Your task to perform on an android device: Add razer blade to the cart on newegg.com Image 0: 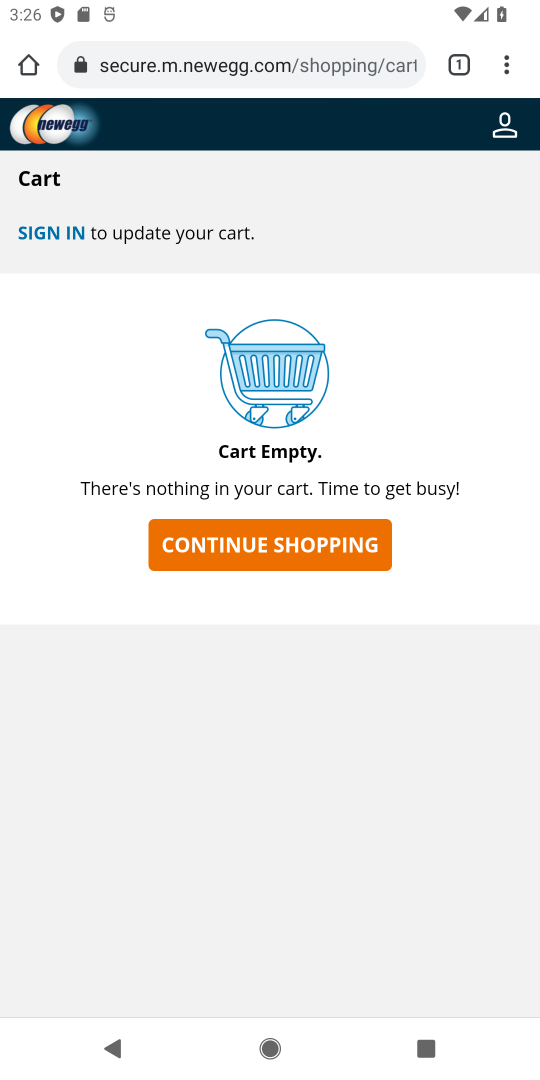
Step 0: press home button
Your task to perform on an android device: Add razer blade to the cart on newegg.com Image 1: 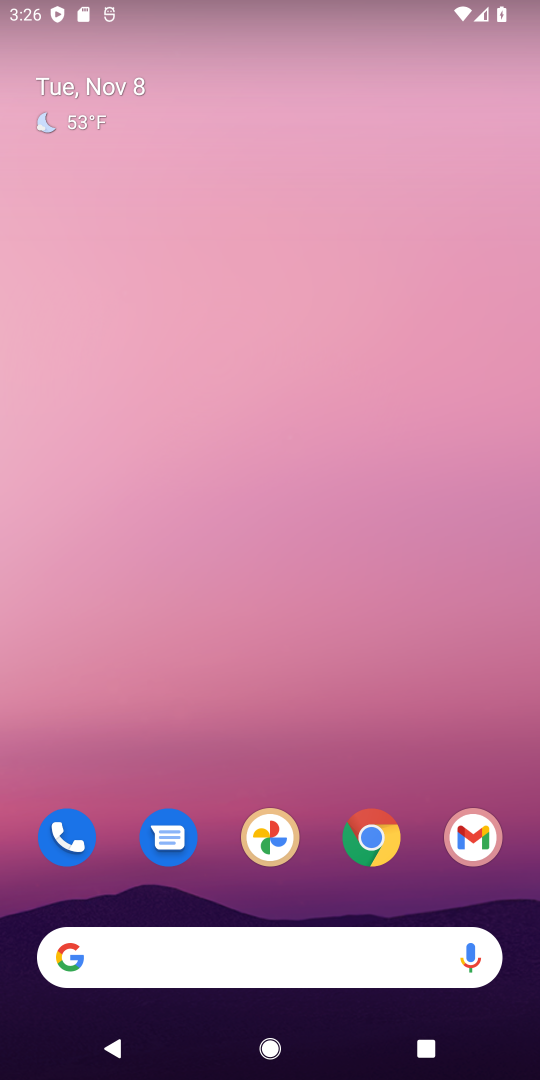
Step 1: click (416, 827)
Your task to perform on an android device: Add razer blade to the cart on newegg.com Image 2: 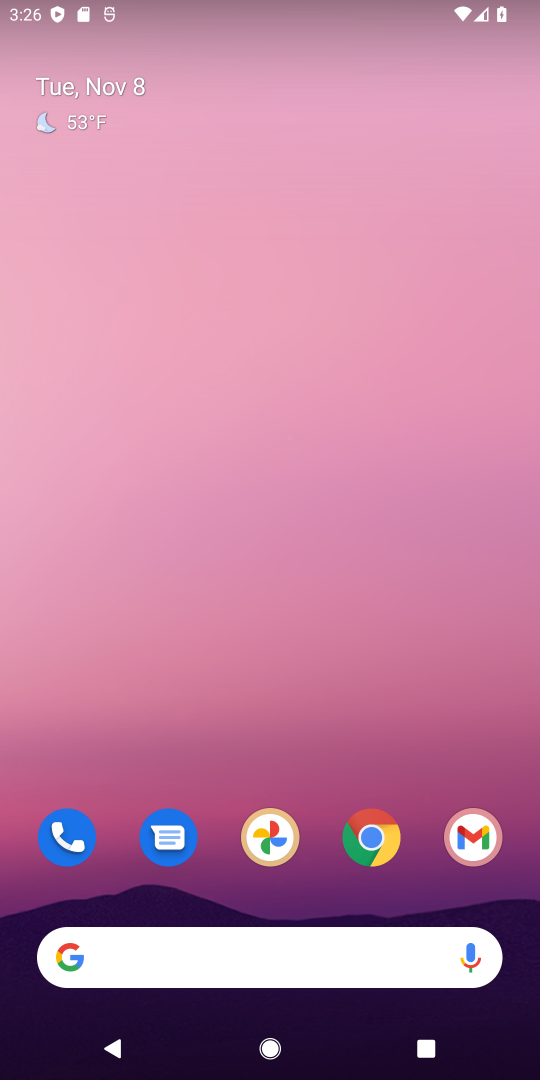
Step 2: click (394, 833)
Your task to perform on an android device: Add razer blade to the cart on newegg.com Image 3: 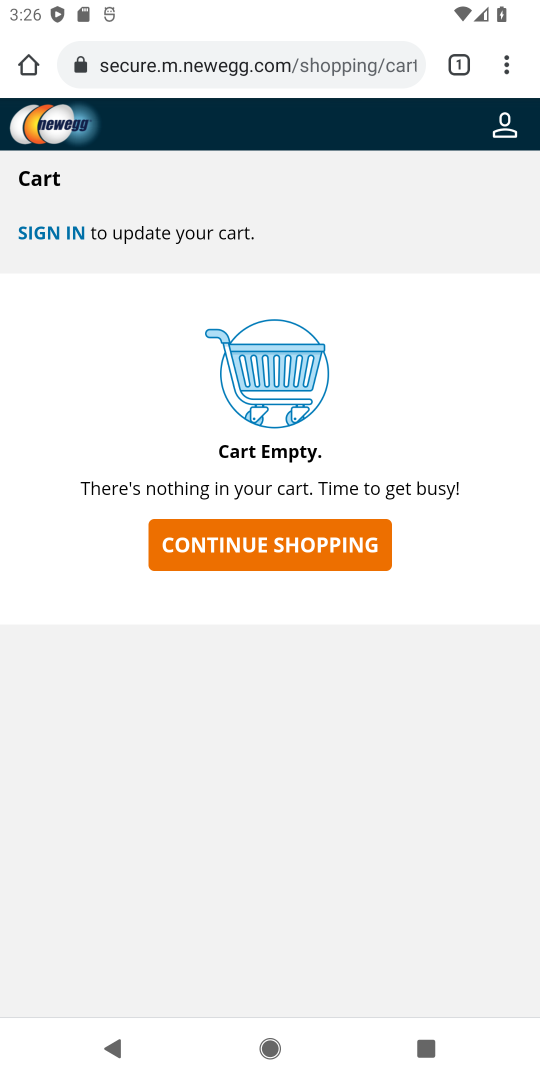
Step 3: click (250, 71)
Your task to perform on an android device: Add razer blade to the cart on newegg.com Image 4: 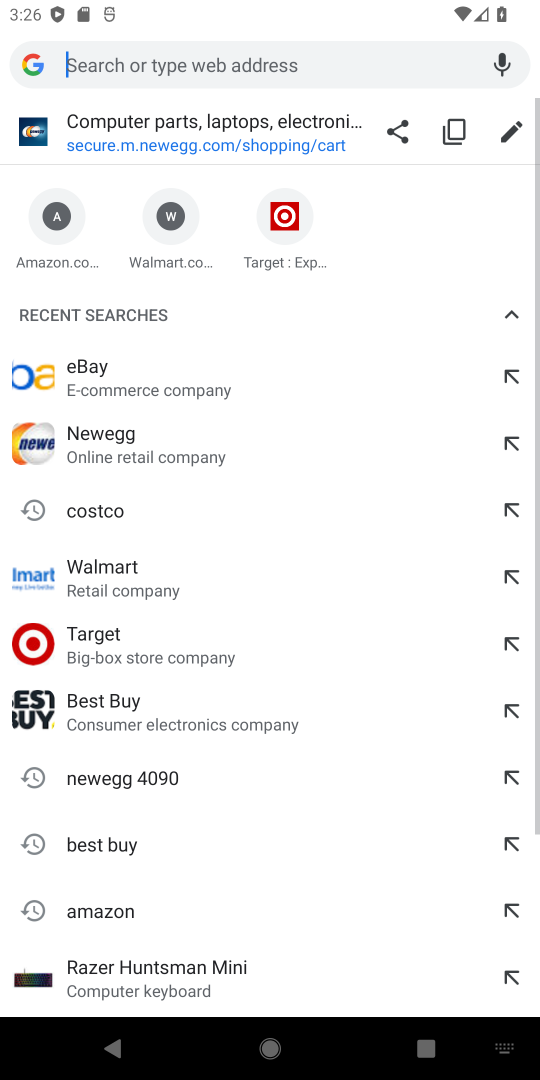
Step 4: click (108, 452)
Your task to perform on an android device: Add razer blade to the cart on newegg.com Image 5: 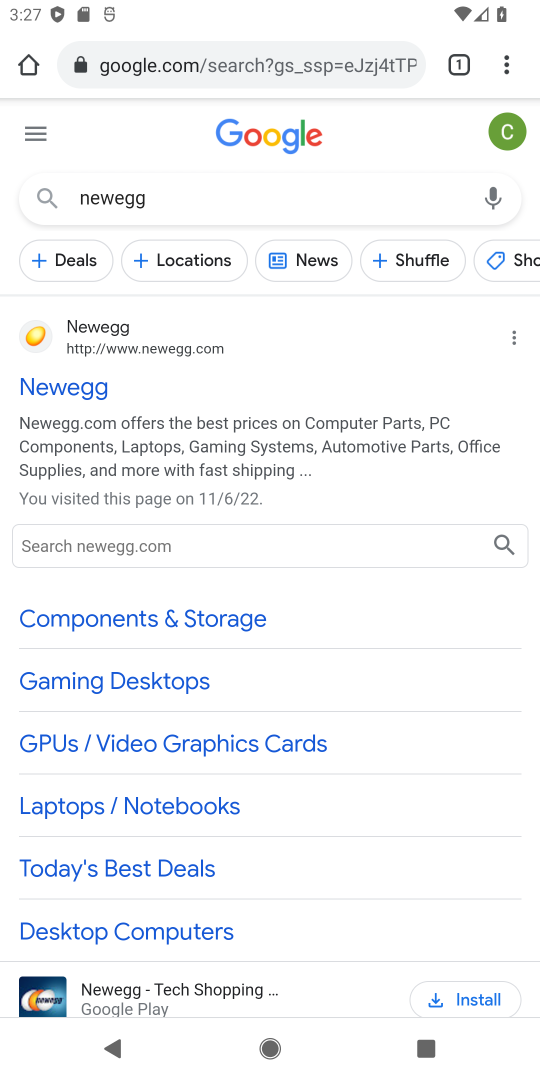
Step 5: drag from (302, 756) to (385, 262)
Your task to perform on an android device: Add razer blade to the cart on newegg.com Image 6: 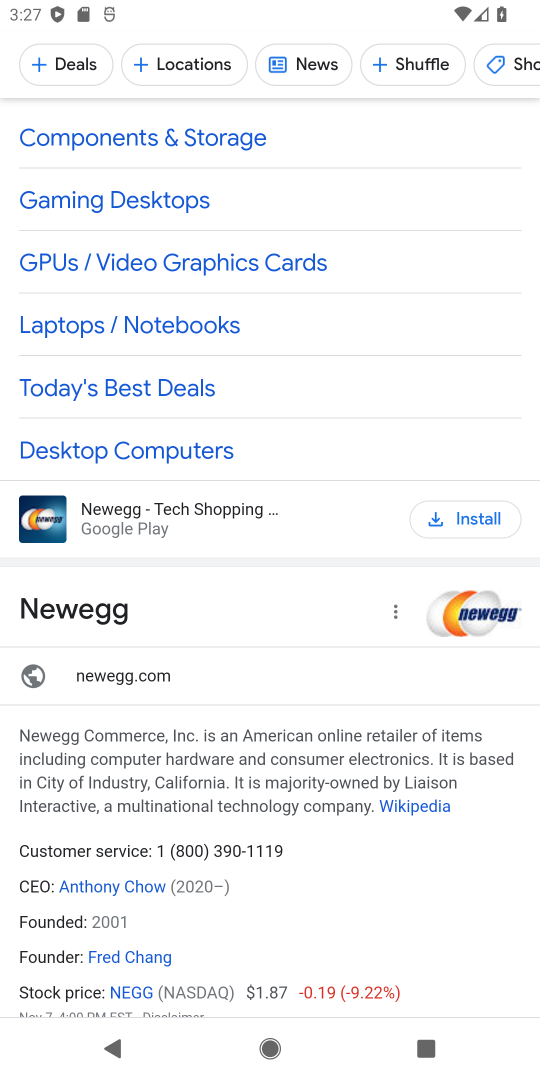
Step 6: drag from (353, 138) to (336, 893)
Your task to perform on an android device: Add razer blade to the cart on newegg.com Image 7: 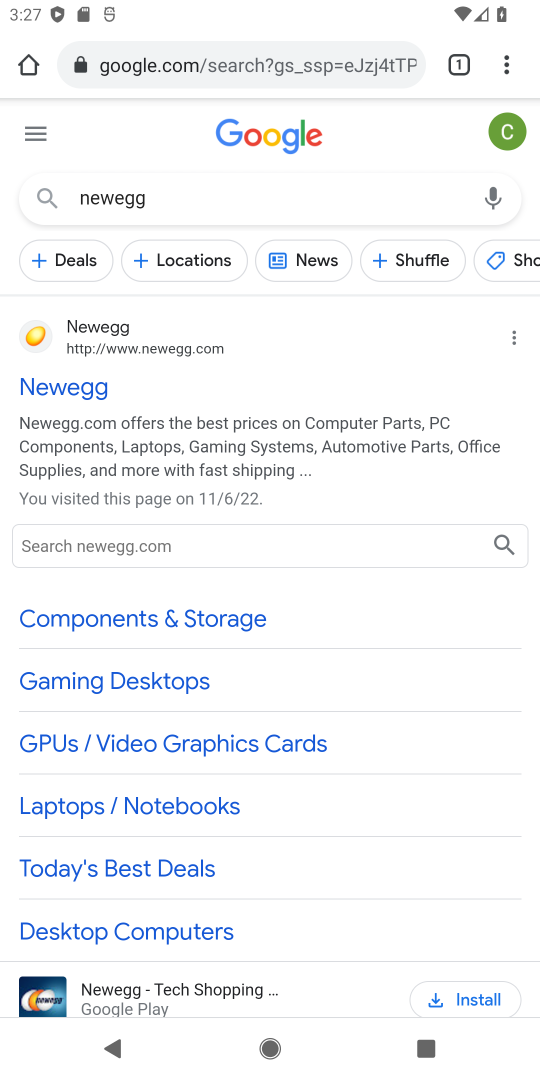
Step 7: click (67, 392)
Your task to perform on an android device: Add razer blade to the cart on newegg.com Image 8: 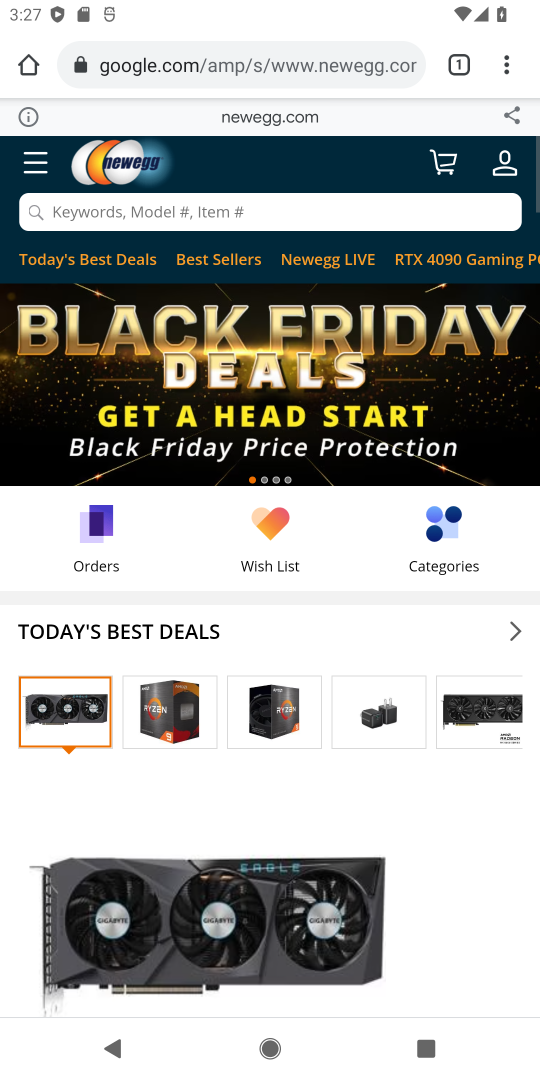
Step 8: click (85, 208)
Your task to perform on an android device: Add razer blade to the cart on newegg.com Image 9: 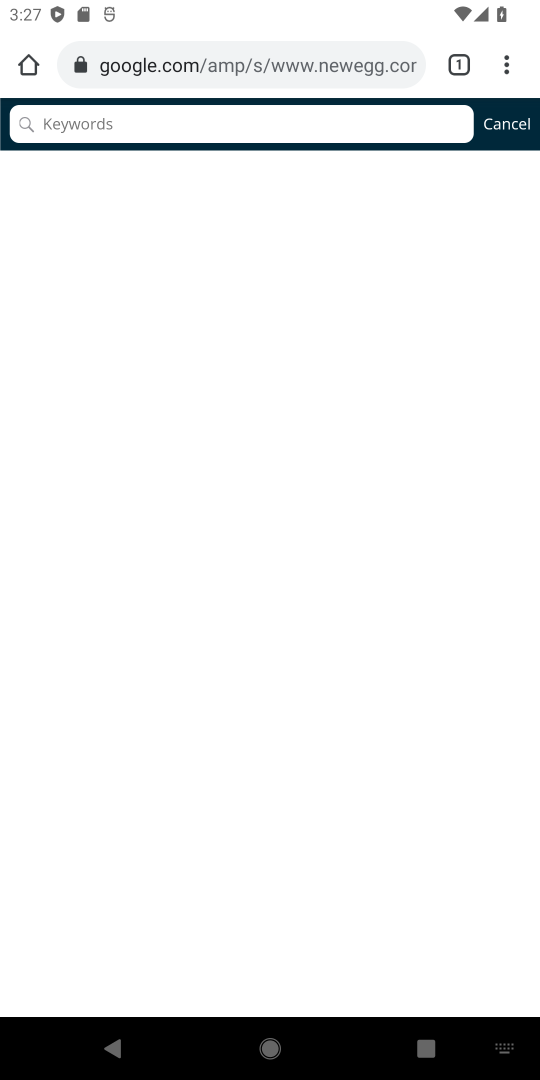
Step 9: type "razer blade"
Your task to perform on an android device: Add razer blade to the cart on newegg.com Image 10: 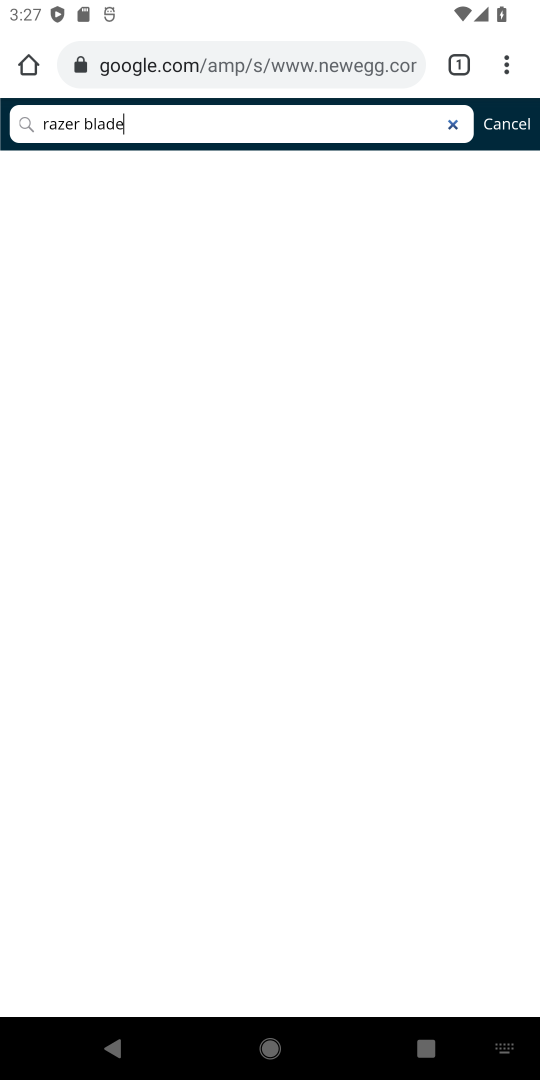
Step 10: click (453, 121)
Your task to perform on an android device: Add razer blade to the cart on newegg.com Image 11: 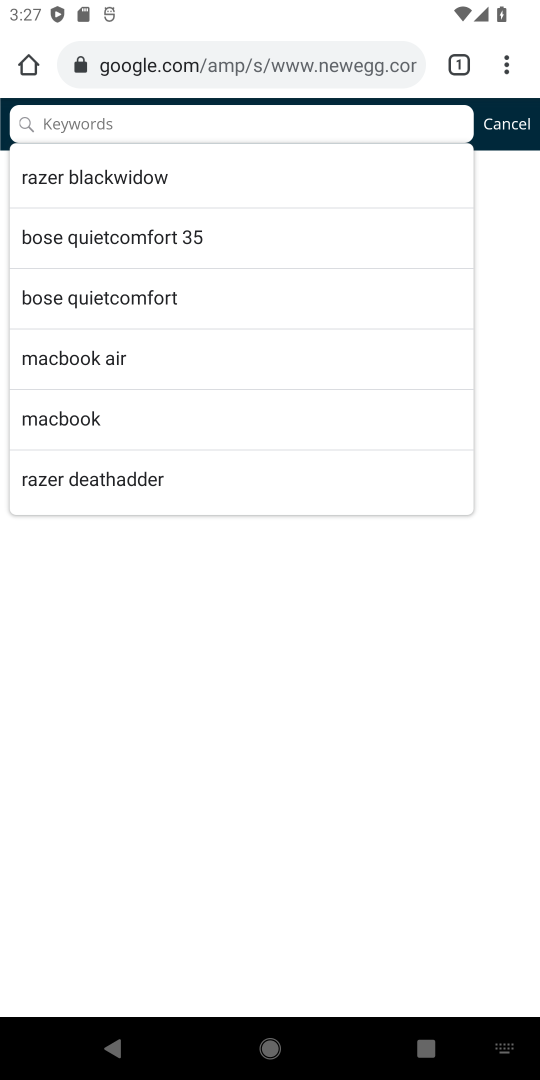
Step 11: click (42, 174)
Your task to perform on an android device: Add razer blade to the cart on newegg.com Image 12: 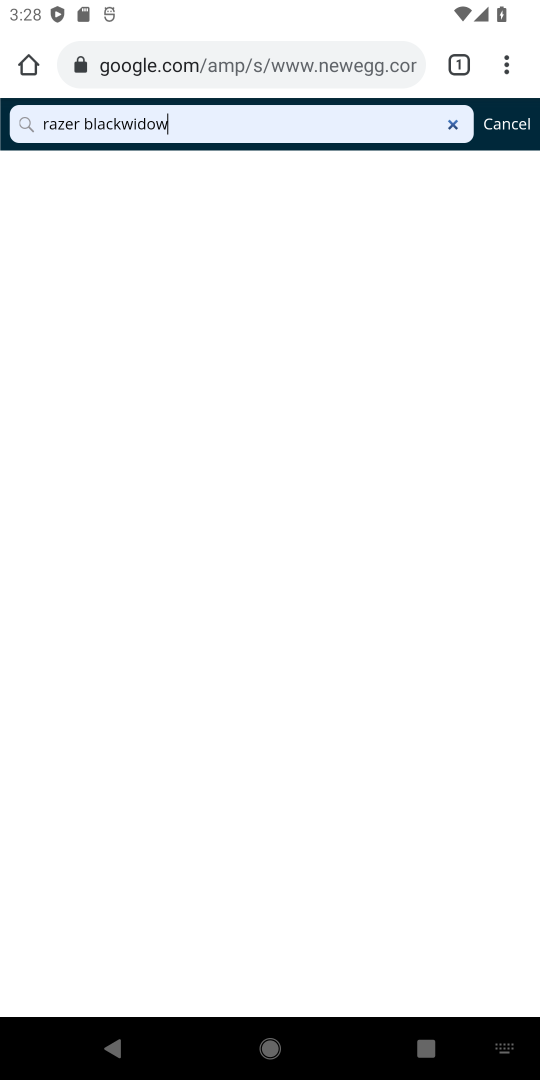
Step 12: click (21, 111)
Your task to perform on an android device: Add razer blade to the cart on newegg.com Image 13: 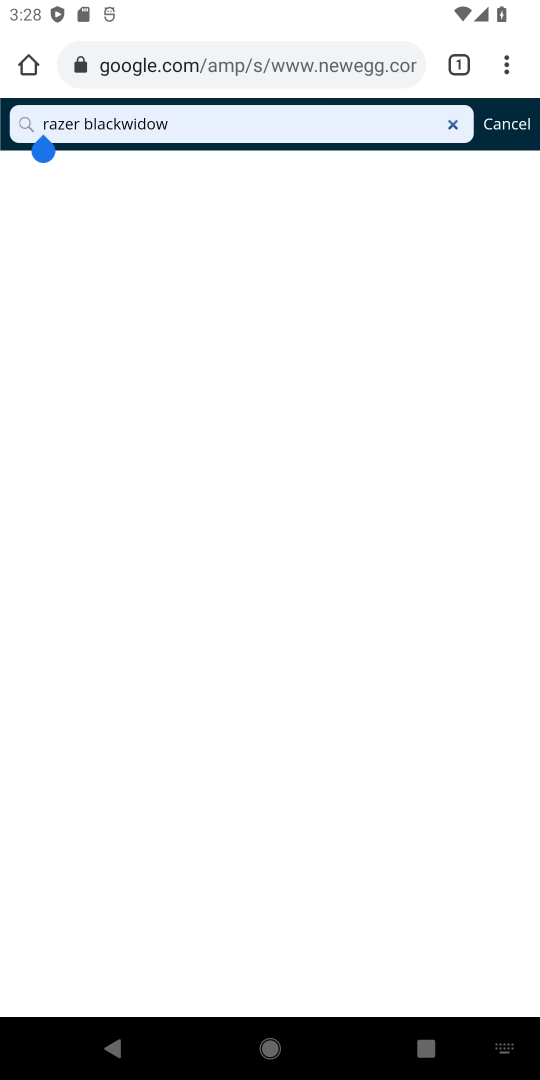
Step 13: task complete